Your task to perform on an android device: see creations saved in the google photos Image 0: 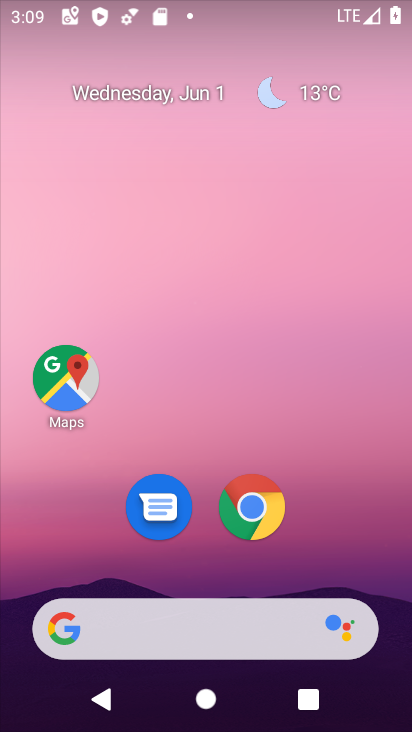
Step 0: drag from (341, 583) to (81, 75)
Your task to perform on an android device: see creations saved in the google photos Image 1: 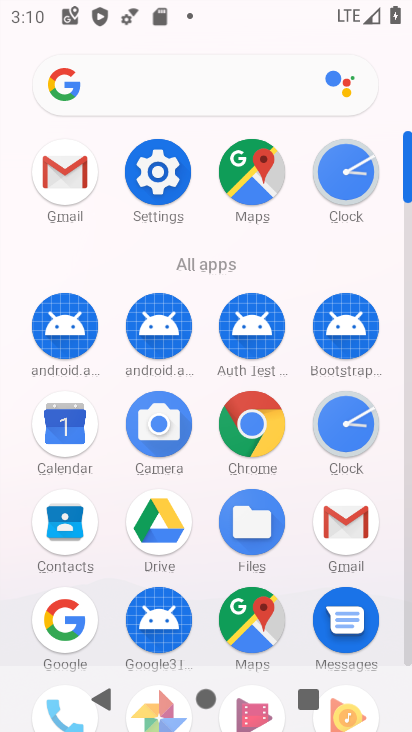
Step 1: drag from (199, 606) to (166, 340)
Your task to perform on an android device: see creations saved in the google photos Image 2: 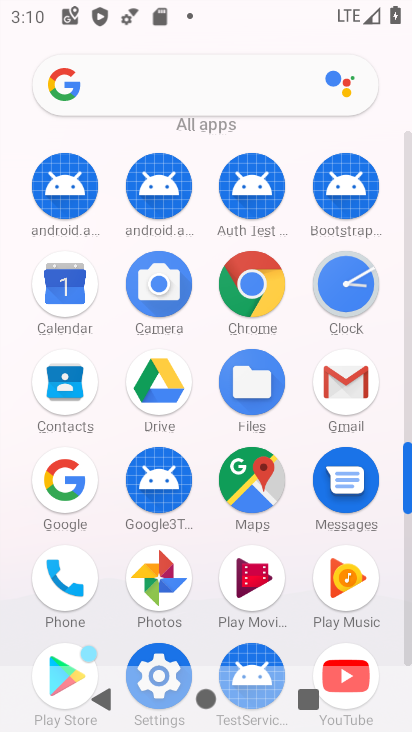
Step 2: click (169, 587)
Your task to perform on an android device: see creations saved in the google photos Image 3: 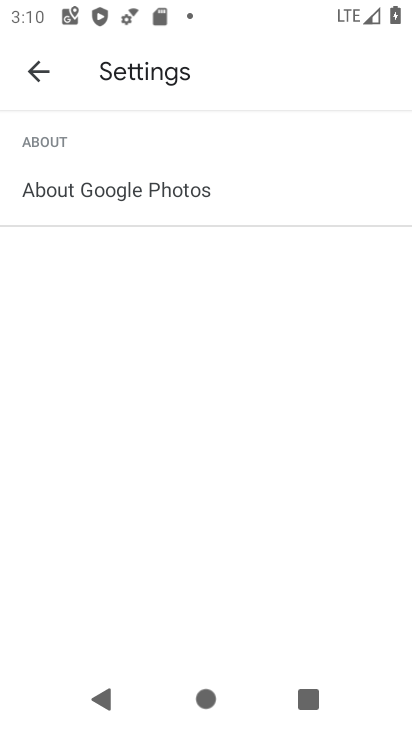
Step 3: press back button
Your task to perform on an android device: see creations saved in the google photos Image 4: 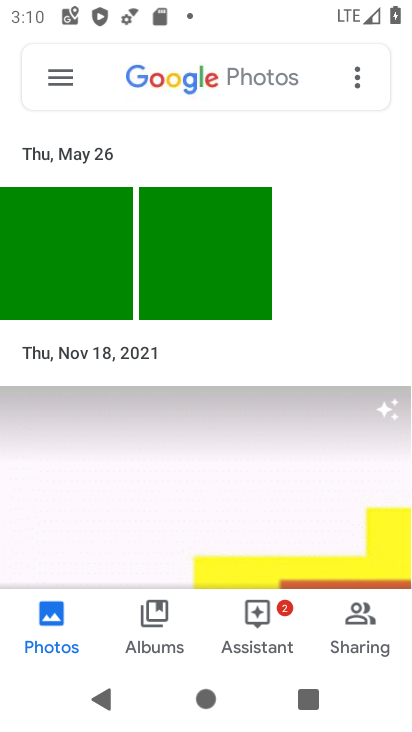
Step 4: click (360, 78)
Your task to perform on an android device: see creations saved in the google photos Image 5: 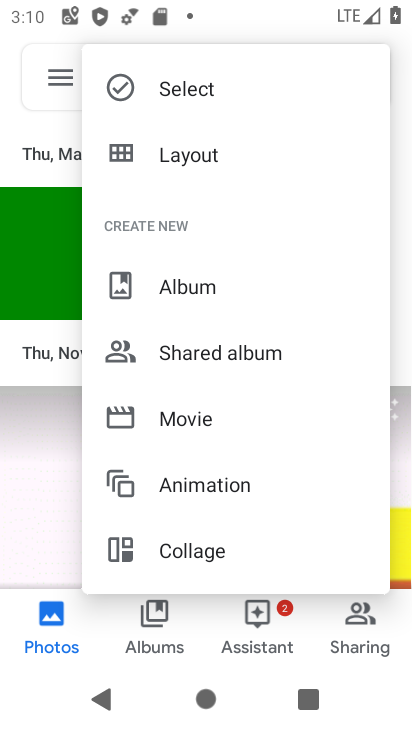
Step 5: drag from (148, 563) to (61, 142)
Your task to perform on an android device: see creations saved in the google photos Image 6: 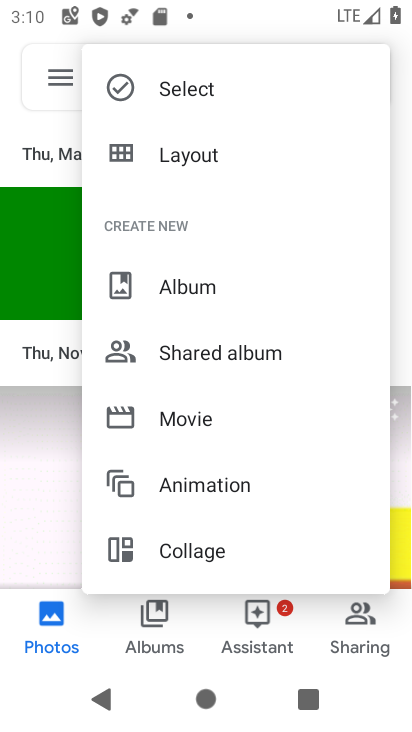
Step 6: click (61, 142)
Your task to perform on an android device: see creations saved in the google photos Image 7: 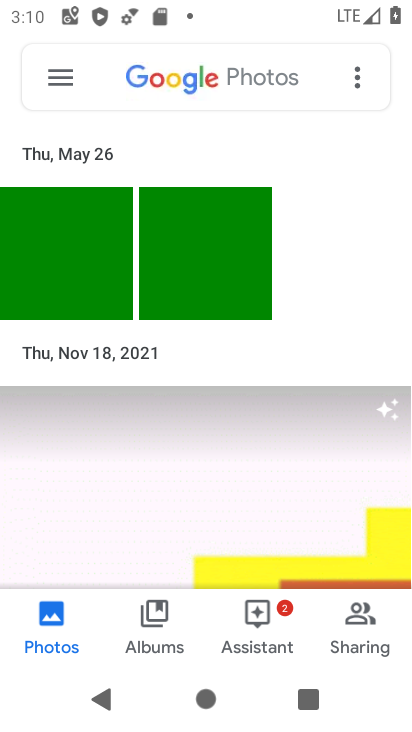
Step 7: click (53, 134)
Your task to perform on an android device: see creations saved in the google photos Image 8: 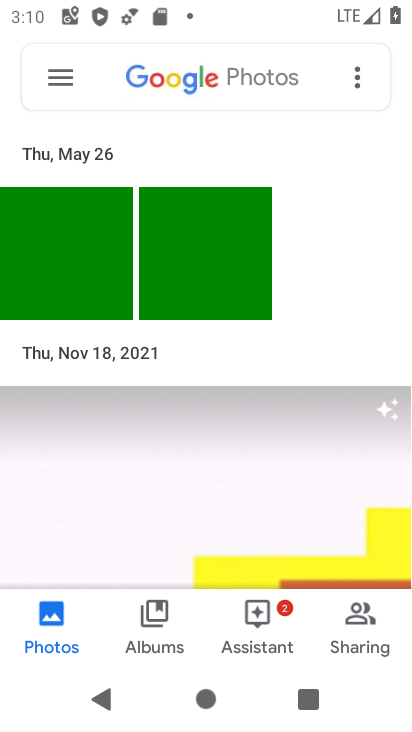
Step 8: click (170, 85)
Your task to perform on an android device: see creations saved in the google photos Image 9: 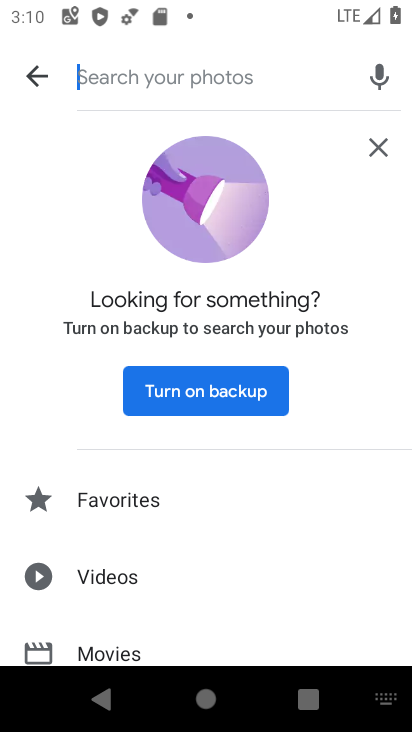
Step 9: drag from (136, 565) to (126, 207)
Your task to perform on an android device: see creations saved in the google photos Image 10: 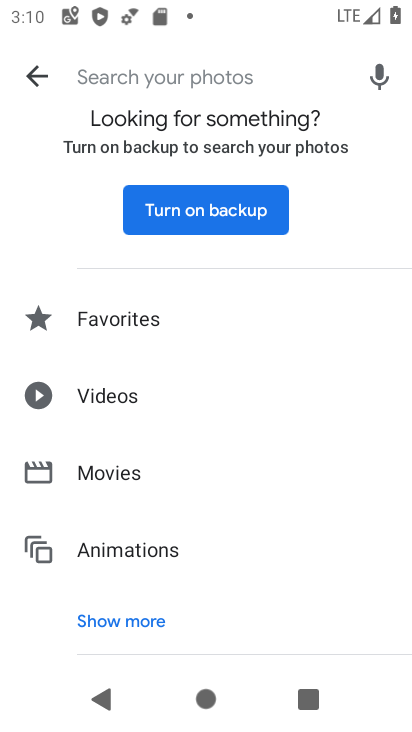
Step 10: click (111, 619)
Your task to perform on an android device: see creations saved in the google photos Image 11: 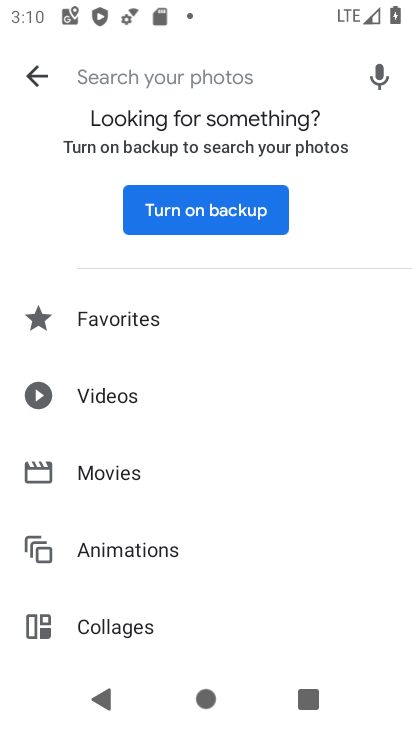
Step 11: drag from (111, 619) to (82, 299)
Your task to perform on an android device: see creations saved in the google photos Image 12: 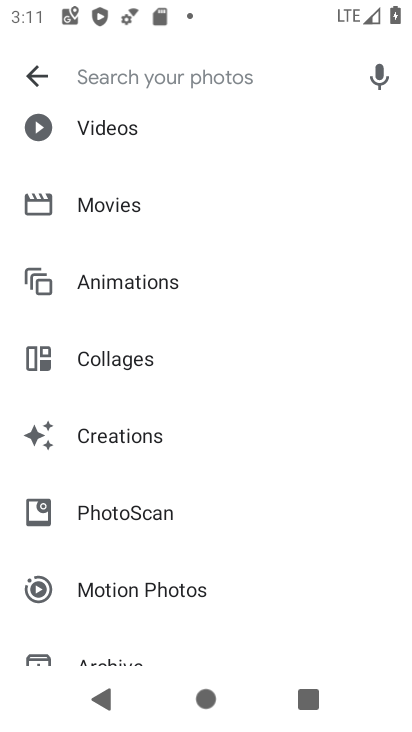
Step 12: click (95, 443)
Your task to perform on an android device: see creations saved in the google photos Image 13: 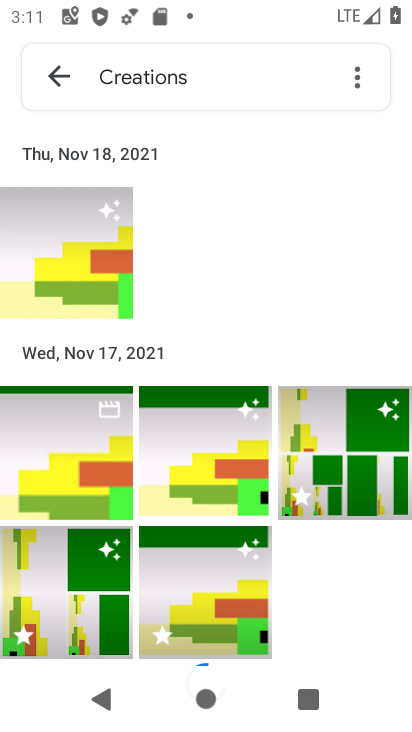
Step 13: task complete